Your task to perform on an android device: open wifi settings Image 0: 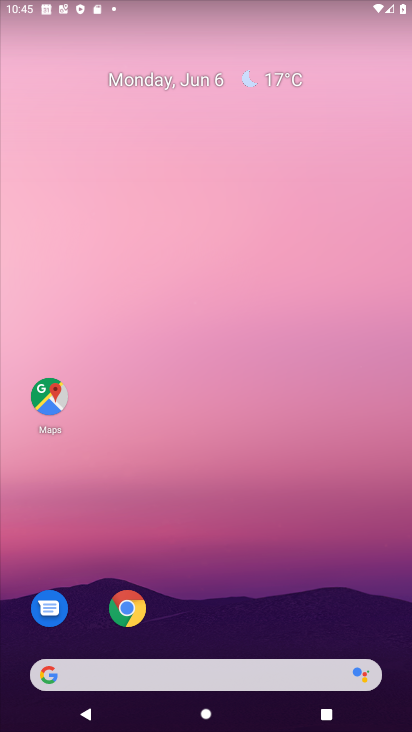
Step 0: drag from (226, 633) to (174, 185)
Your task to perform on an android device: open wifi settings Image 1: 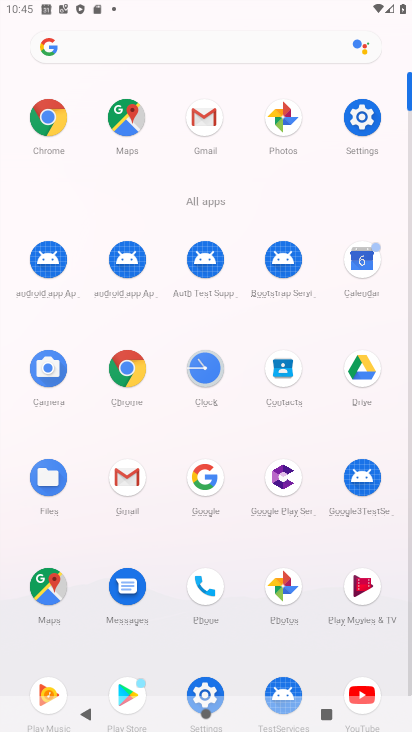
Step 1: click (366, 133)
Your task to perform on an android device: open wifi settings Image 2: 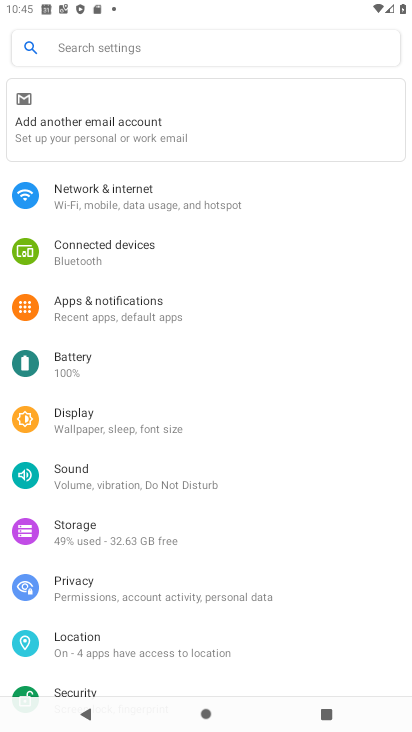
Step 2: click (266, 199)
Your task to perform on an android device: open wifi settings Image 3: 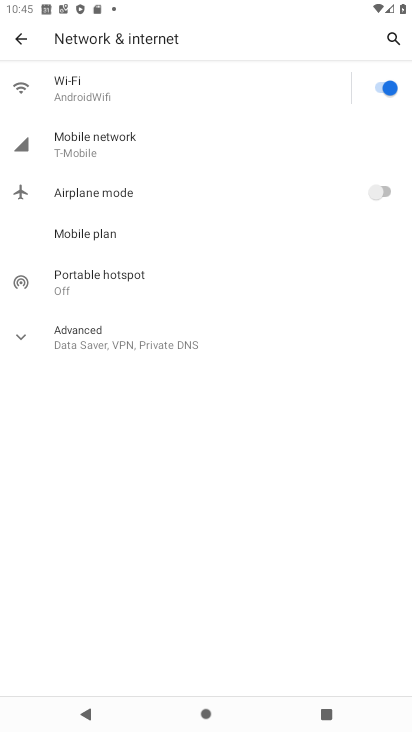
Step 3: click (152, 98)
Your task to perform on an android device: open wifi settings Image 4: 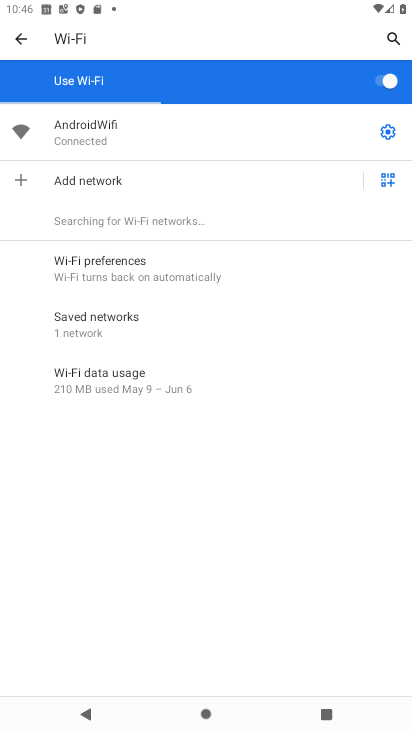
Step 4: task complete